Your task to perform on an android device: Open the stopwatch Image 0: 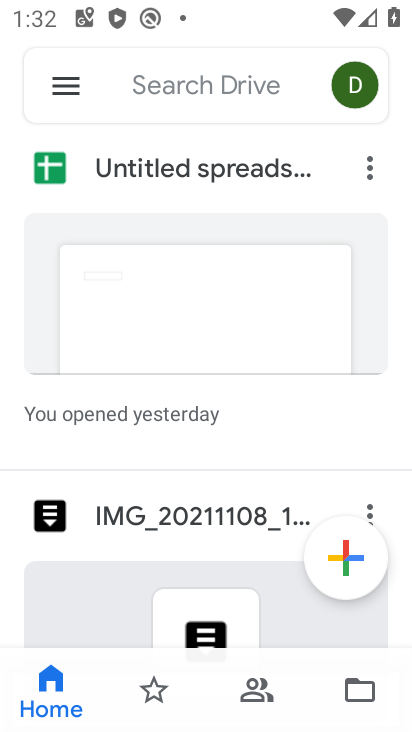
Step 0: press home button
Your task to perform on an android device: Open the stopwatch Image 1: 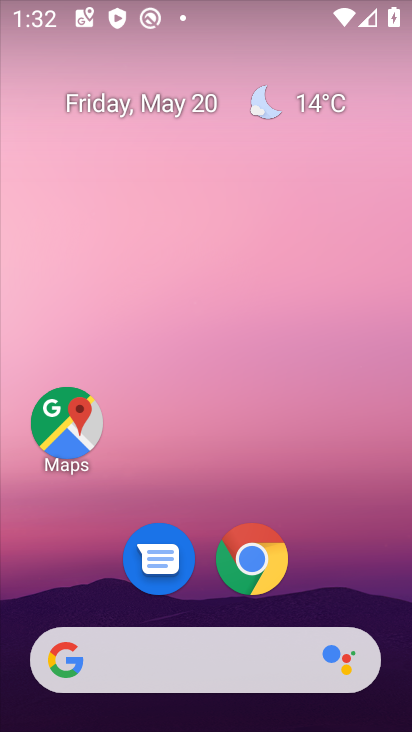
Step 1: drag from (342, 541) to (344, 166)
Your task to perform on an android device: Open the stopwatch Image 2: 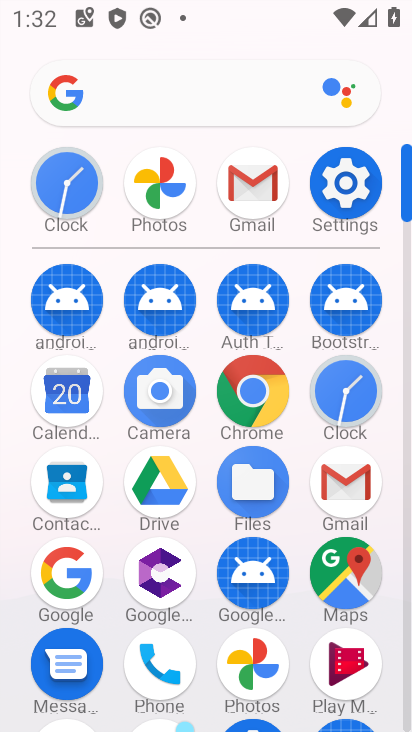
Step 2: click (344, 386)
Your task to perform on an android device: Open the stopwatch Image 3: 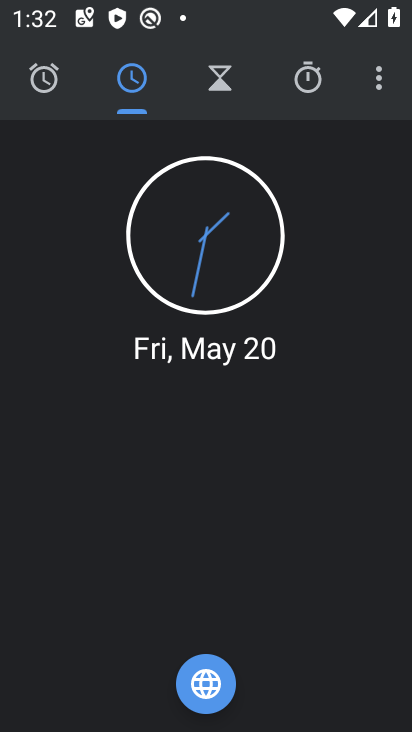
Step 3: click (302, 97)
Your task to perform on an android device: Open the stopwatch Image 4: 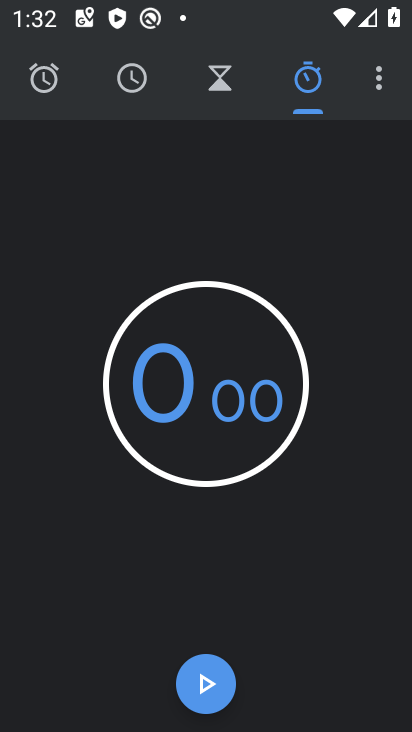
Step 4: task complete